Your task to perform on an android device: How big is the sun? Image 0: 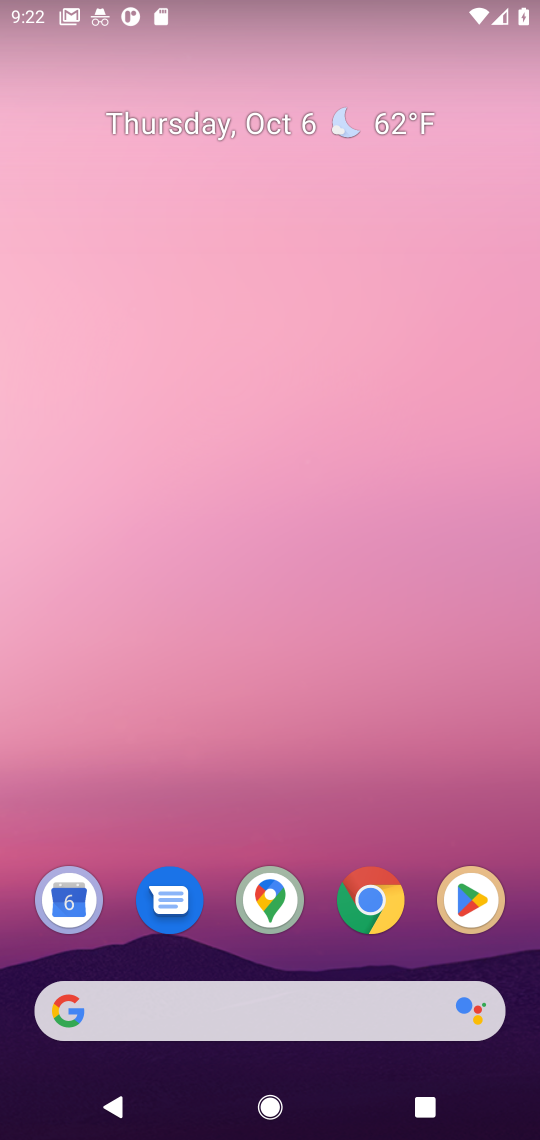
Step 0: press home button
Your task to perform on an android device: How big is the sun? Image 1: 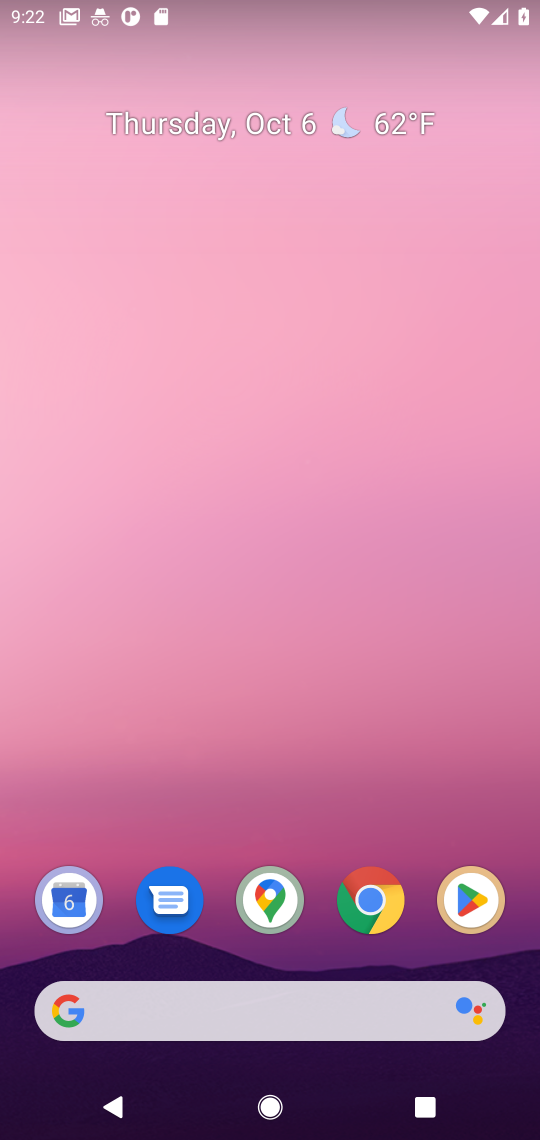
Step 1: click (269, 1012)
Your task to perform on an android device: How big is the sun? Image 2: 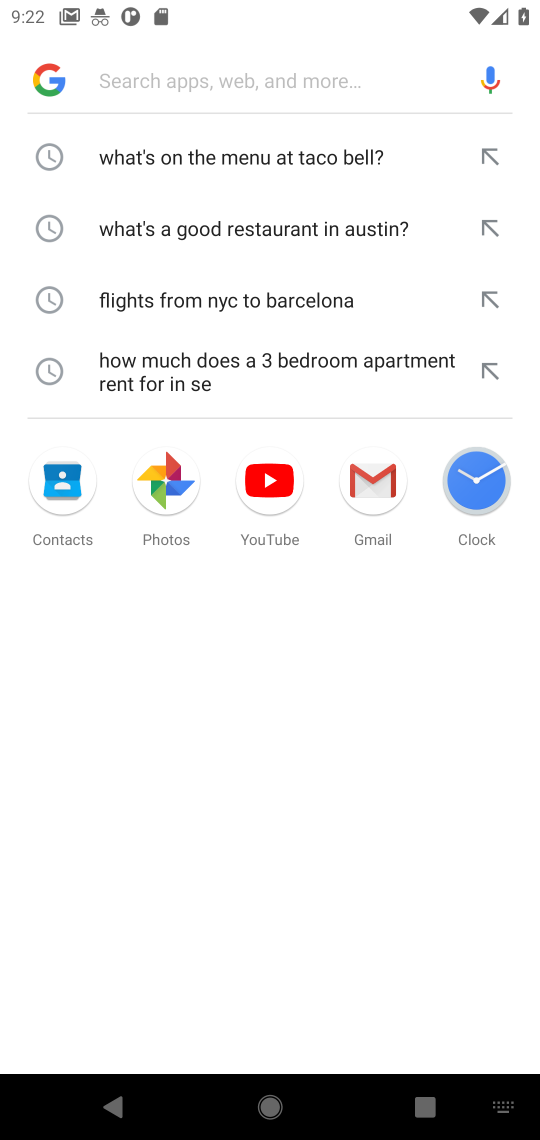
Step 2: type "how big is the sun "
Your task to perform on an android device: How big is the sun? Image 3: 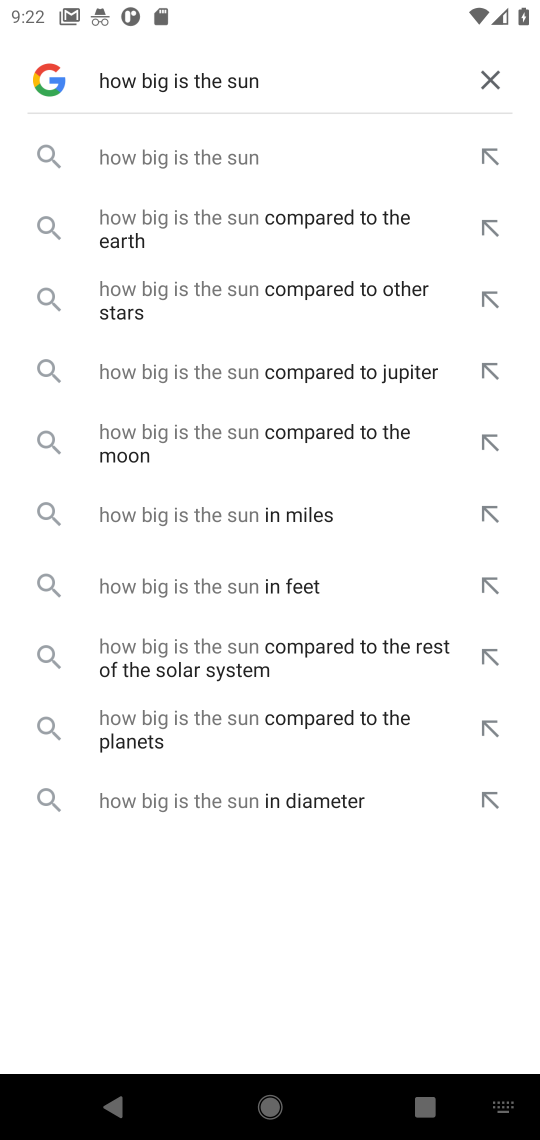
Step 3: press enter
Your task to perform on an android device: How big is the sun? Image 4: 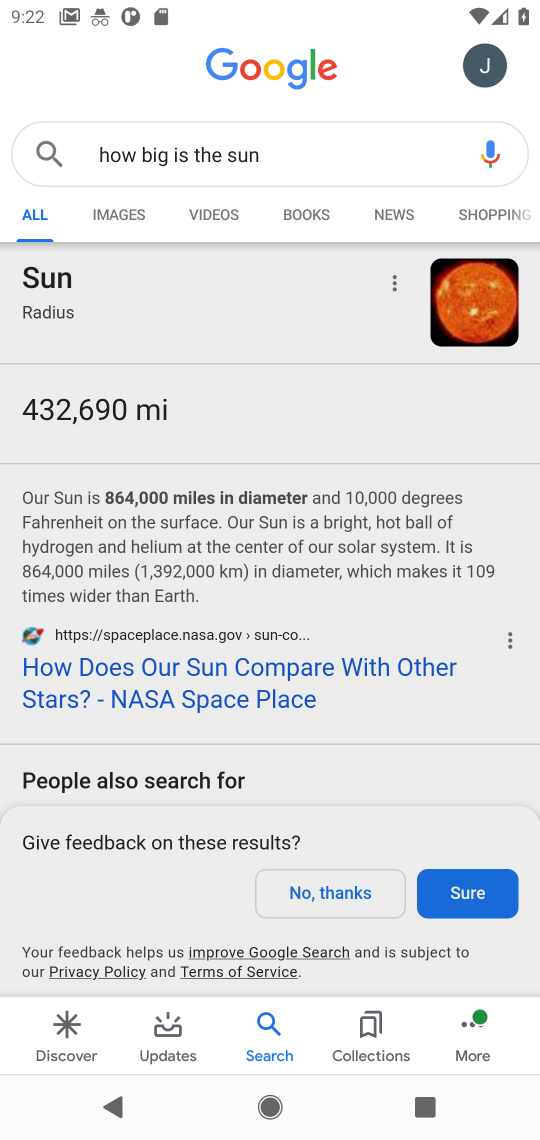
Step 4: click (331, 892)
Your task to perform on an android device: How big is the sun? Image 5: 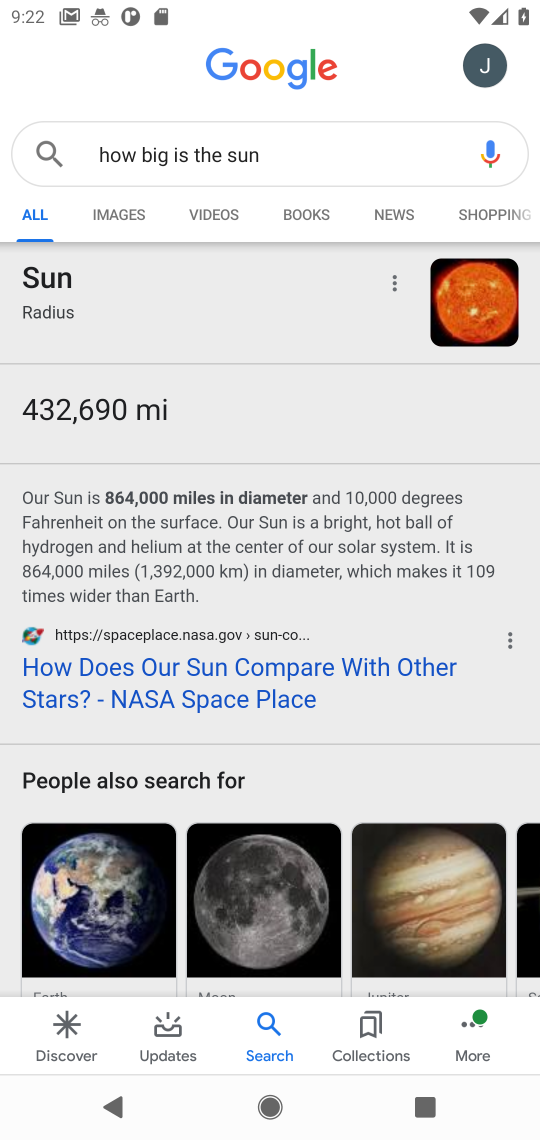
Step 5: task complete